Your task to perform on an android device: allow notifications from all sites in the chrome app Image 0: 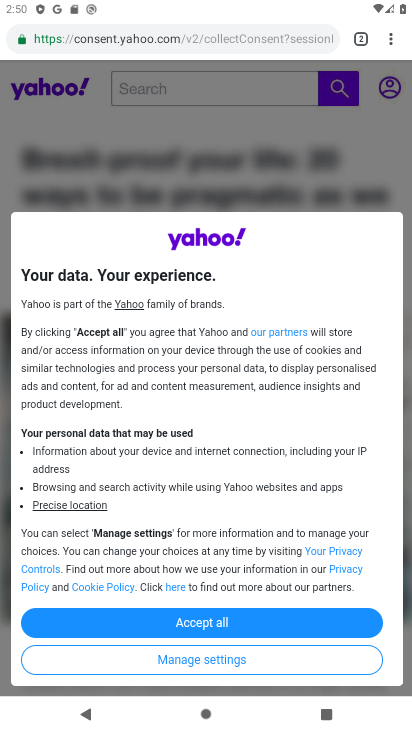
Step 0: click (400, 39)
Your task to perform on an android device: allow notifications from all sites in the chrome app Image 1: 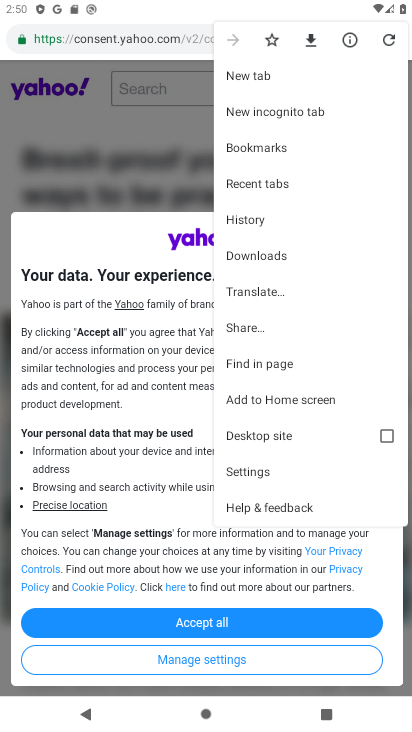
Step 1: click (253, 475)
Your task to perform on an android device: allow notifications from all sites in the chrome app Image 2: 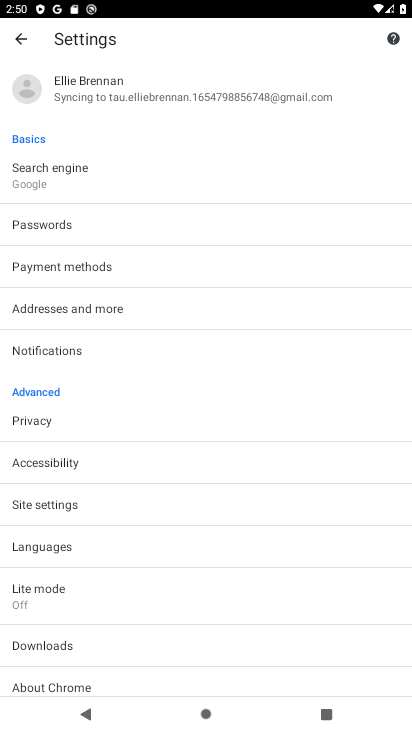
Step 2: click (47, 344)
Your task to perform on an android device: allow notifications from all sites in the chrome app Image 3: 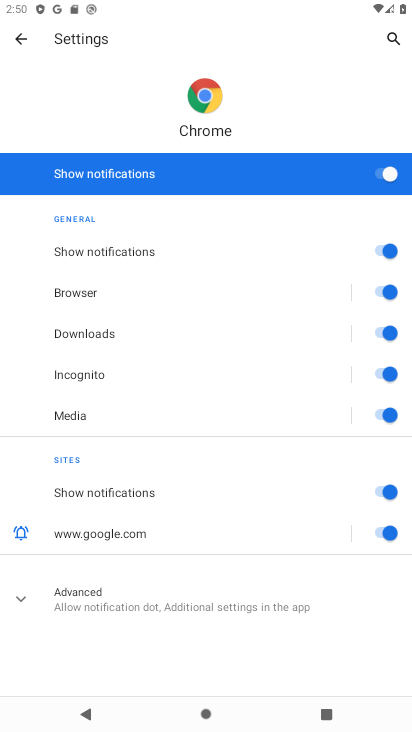
Step 3: task complete